Your task to perform on an android device: snooze an email in the gmail app Image 0: 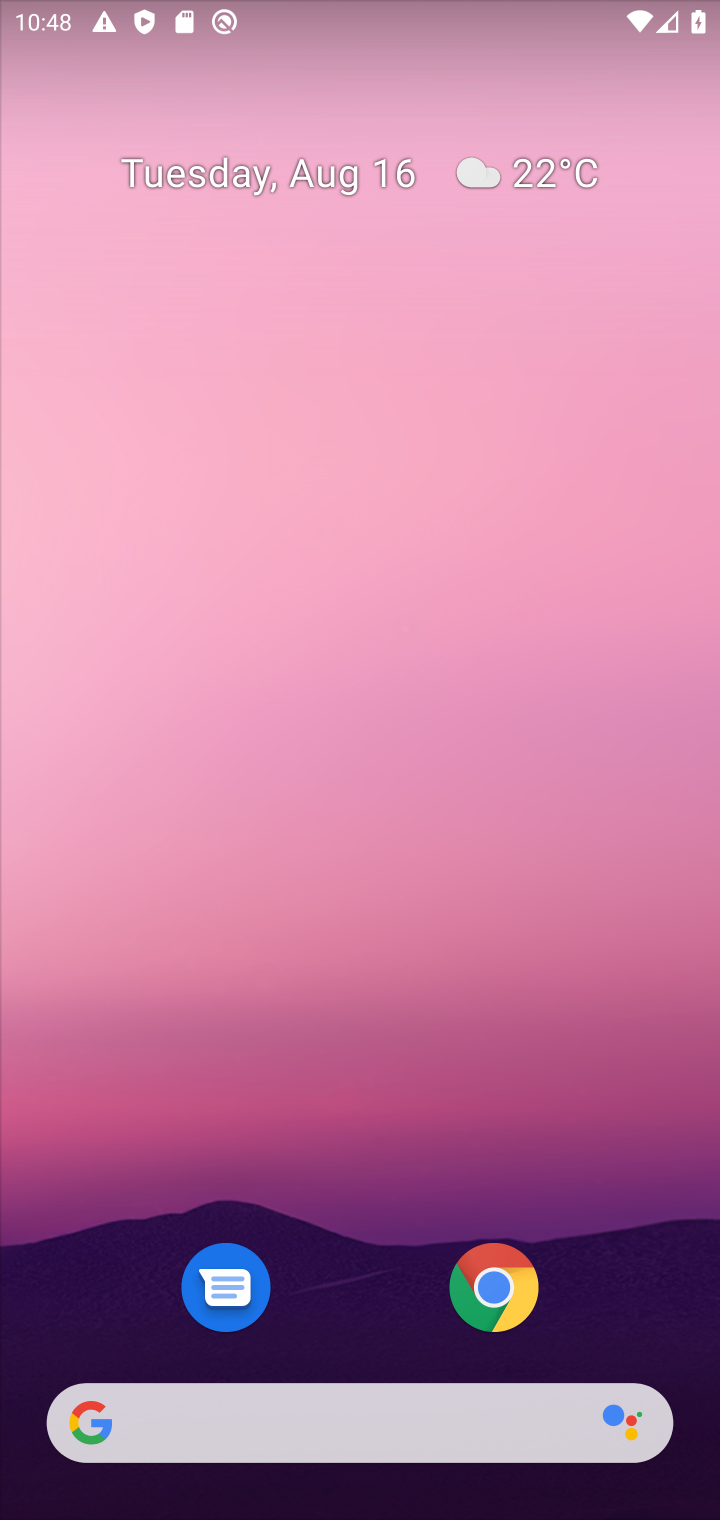
Step 0: drag from (623, 1034) to (591, 206)
Your task to perform on an android device: snooze an email in the gmail app Image 1: 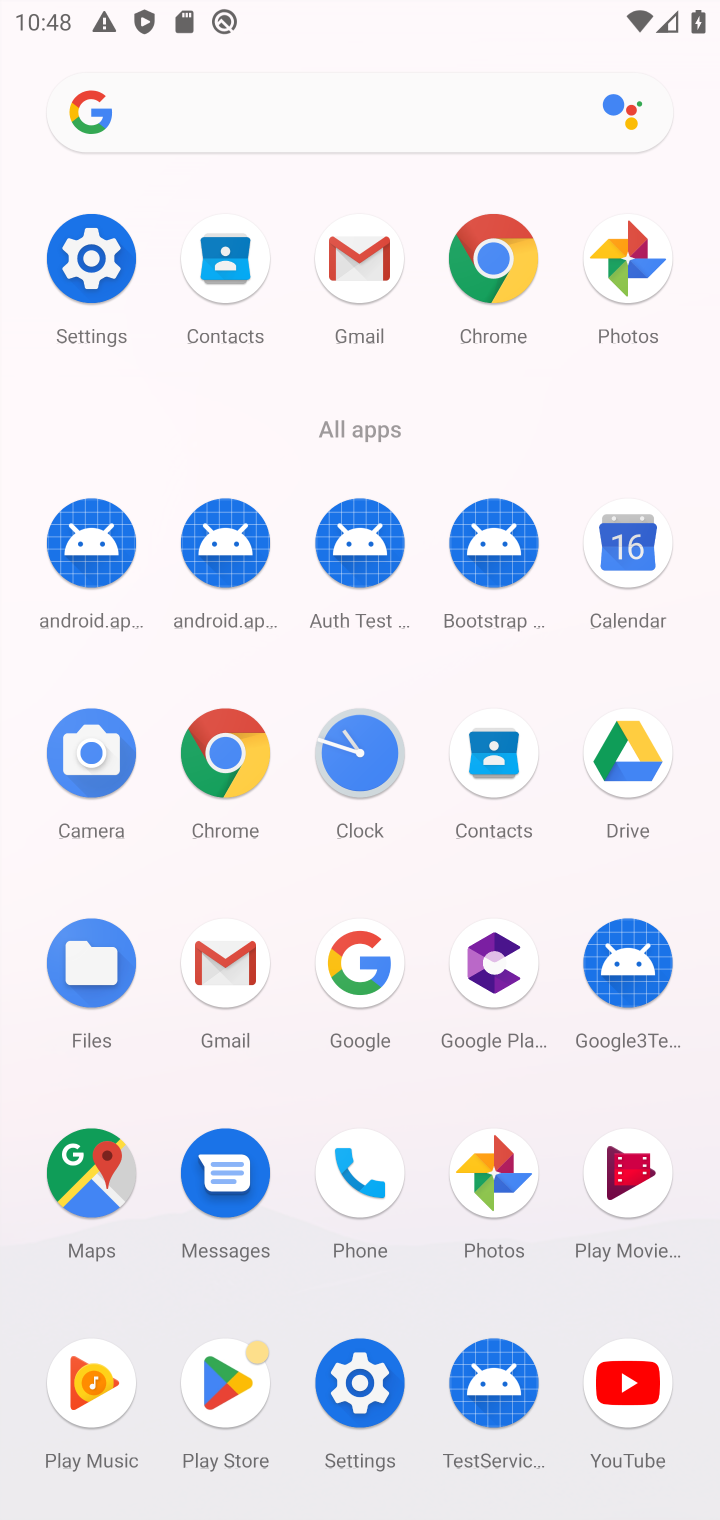
Step 1: click (225, 971)
Your task to perform on an android device: snooze an email in the gmail app Image 2: 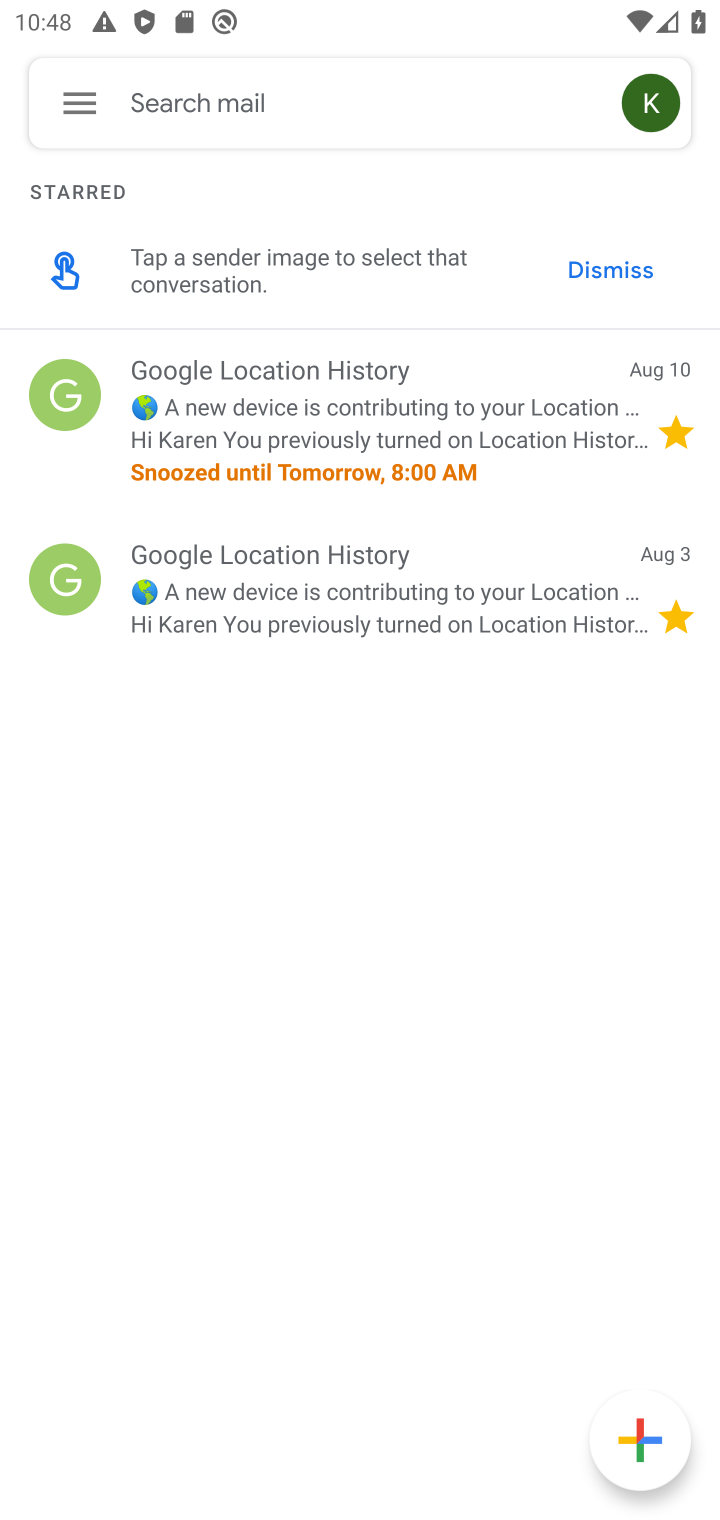
Step 2: click (399, 571)
Your task to perform on an android device: snooze an email in the gmail app Image 3: 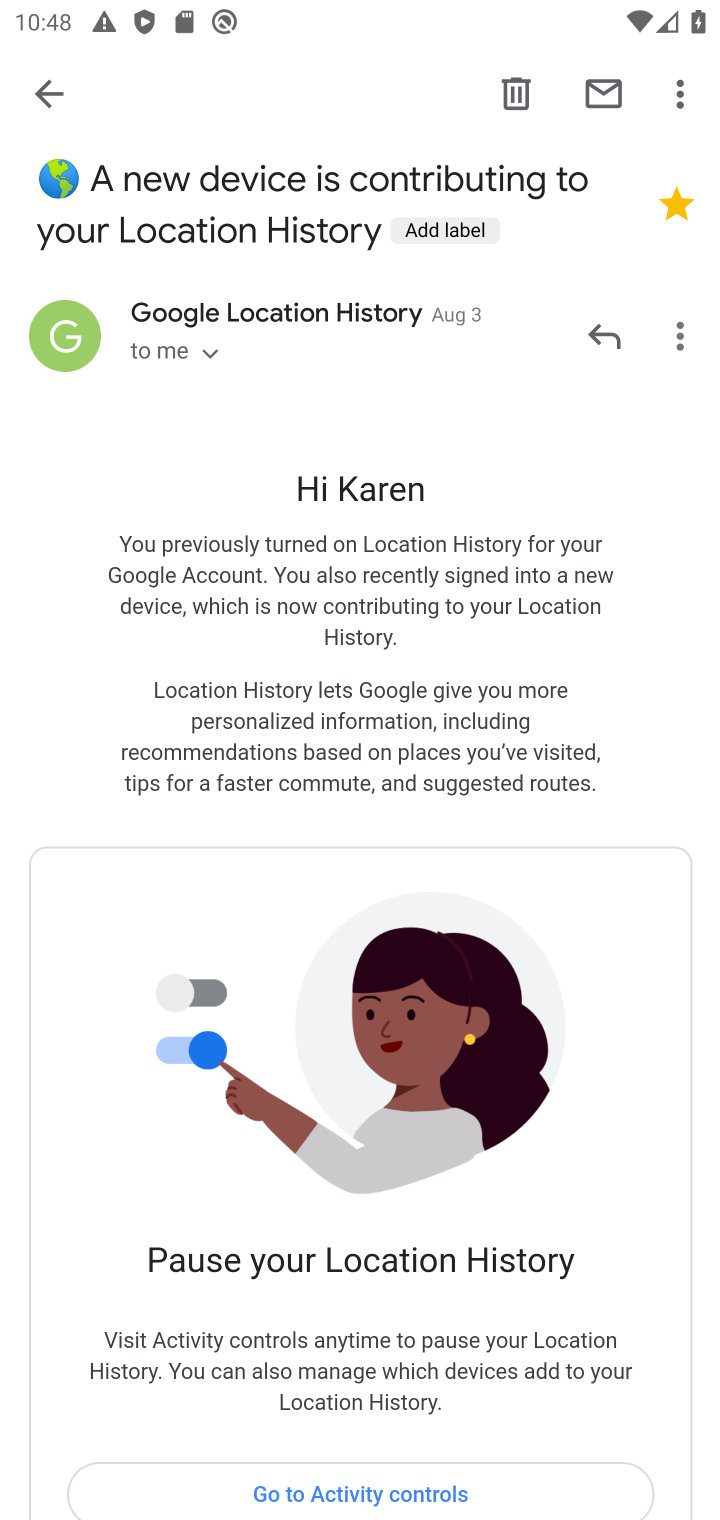
Step 3: click (667, 101)
Your task to perform on an android device: snooze an email in the gmail app Image 4: 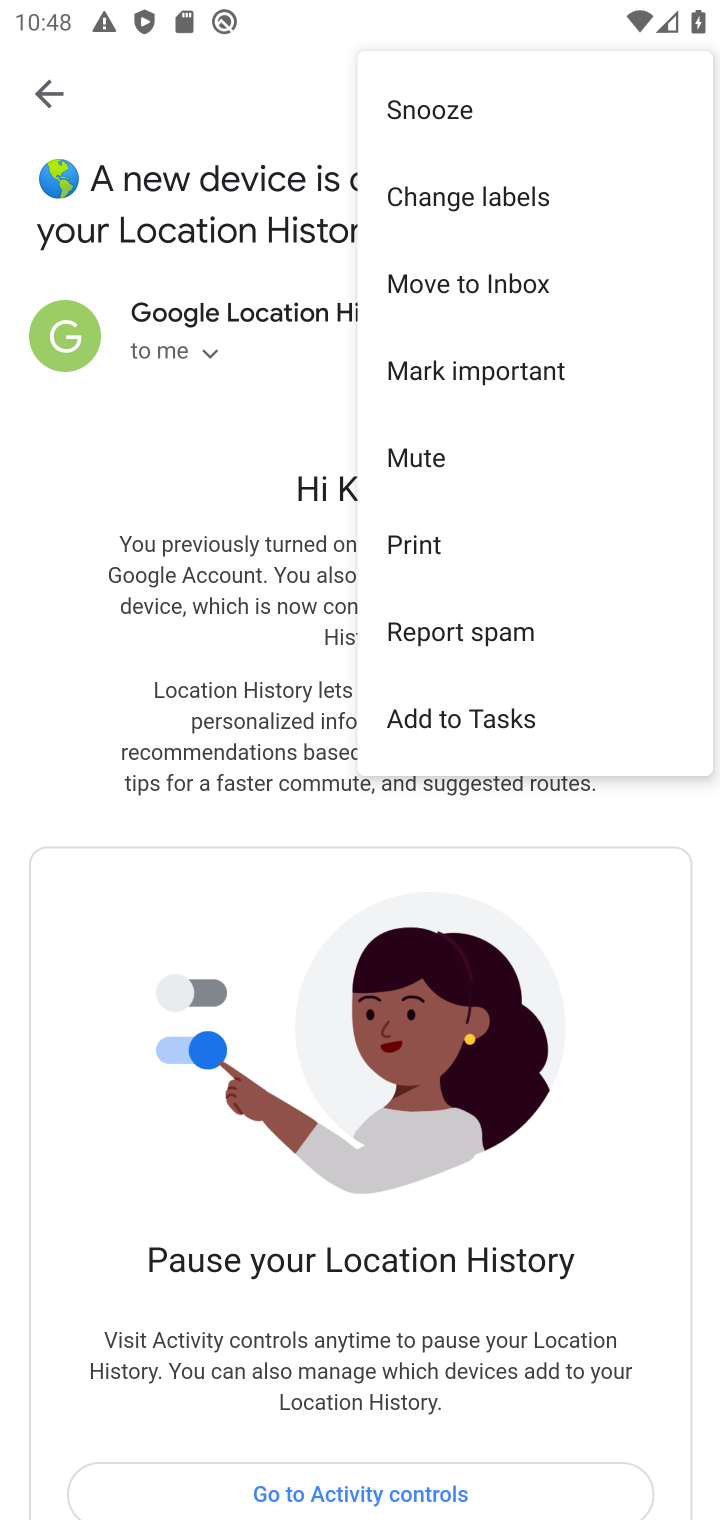
Step 4: click (420, 104)
Your task to perform on an android device: snooze an email in the gmail app Image 5: 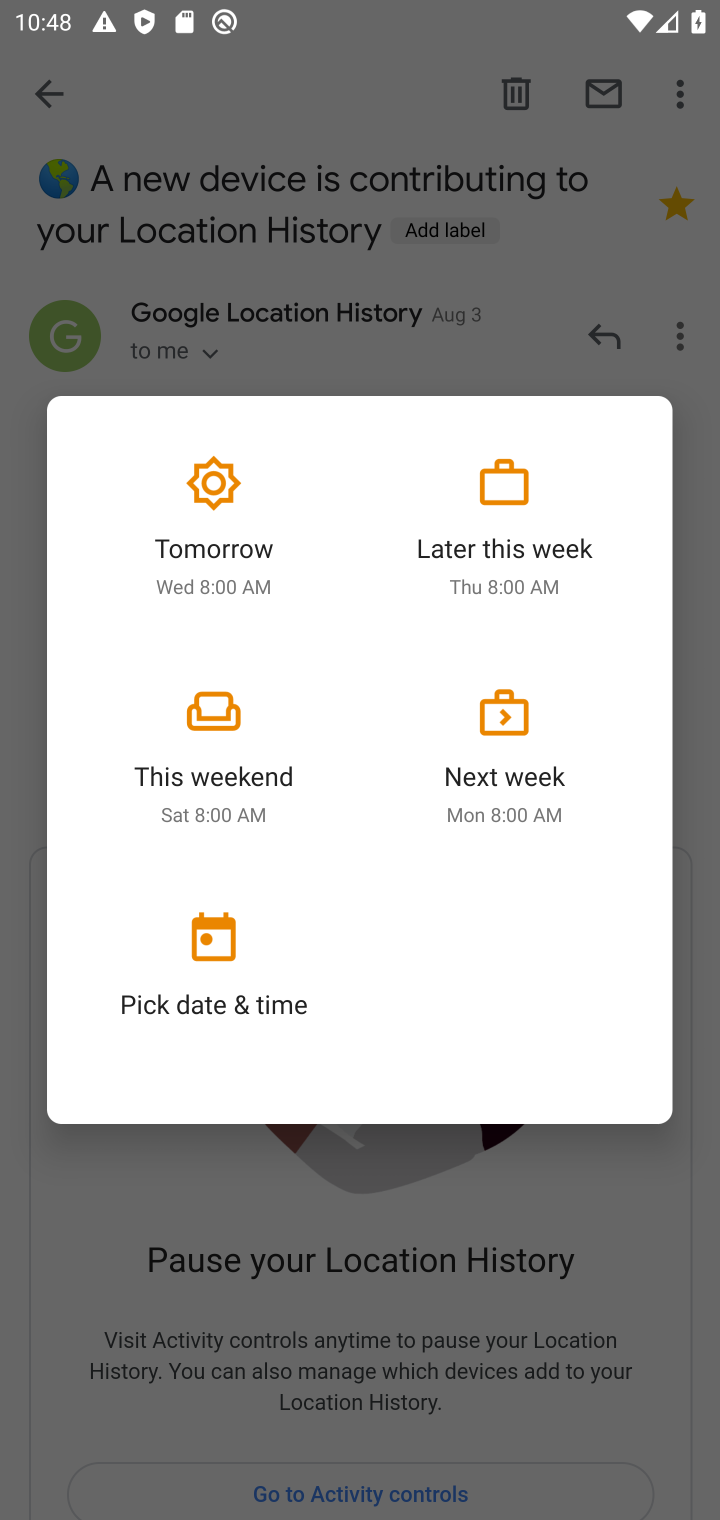
Step 5: click (221, 553)
Your task to perform on an android device: snooze an email in the gmail app Image 6: 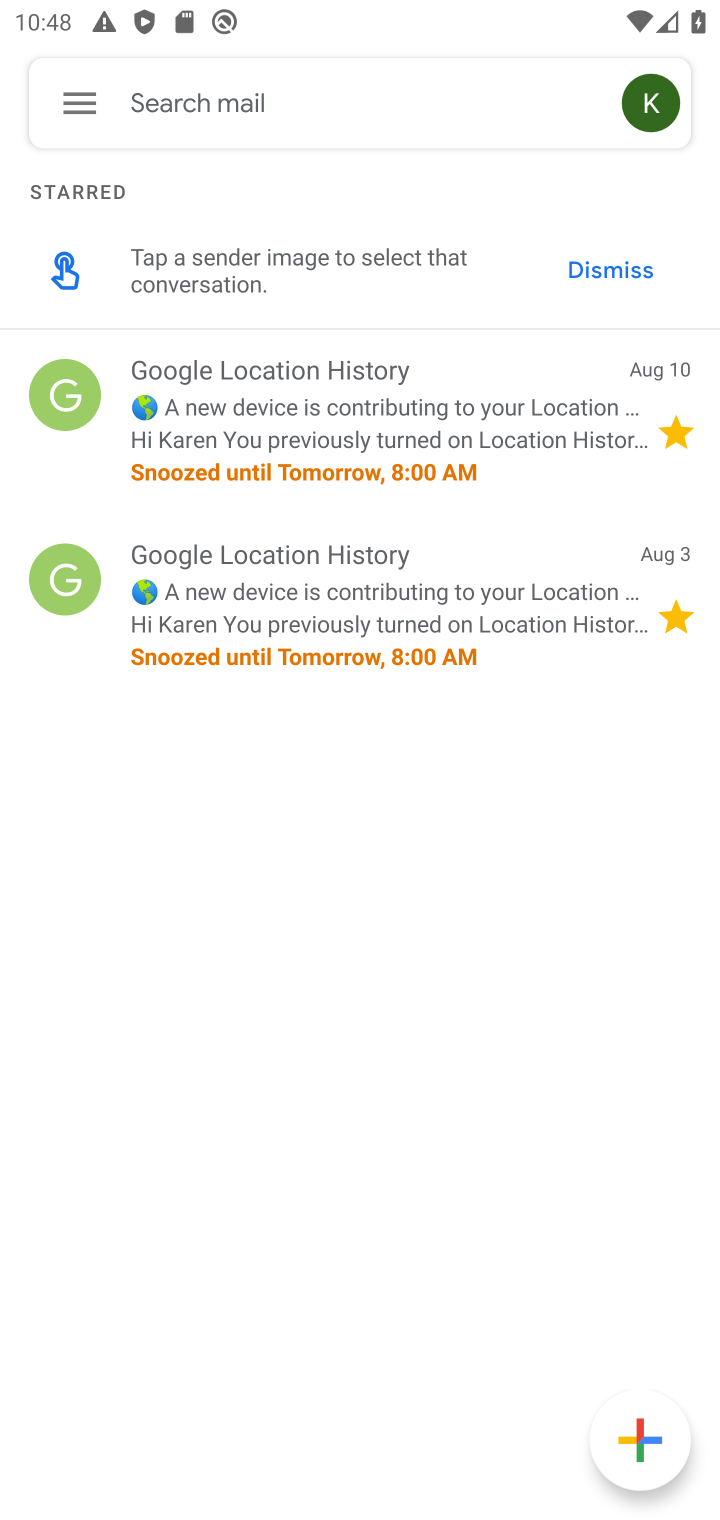
Step 6: task complete